Your task to perform on an android device: toggle notification dots Image 0: 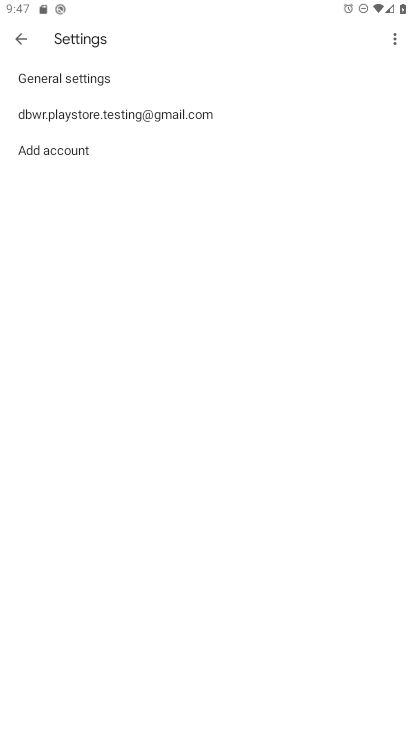
Step 0: press home button
Your task to perform on an android device: toggle notification dots Image 1: 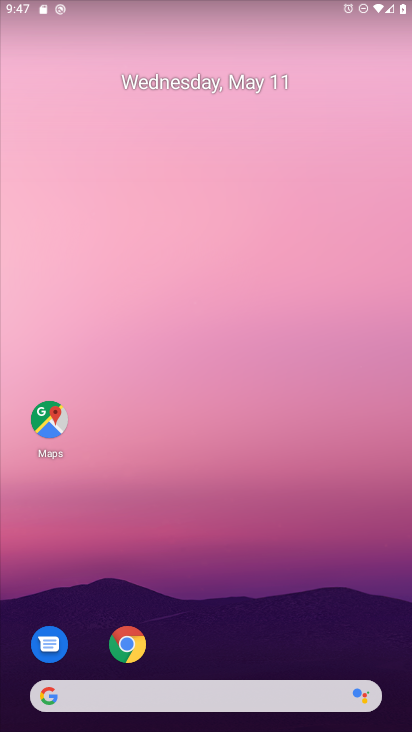
Step 1: drag from (223, 560) to (139, 78)
Your task to perform on an android device: toggle notification dots Image 2: 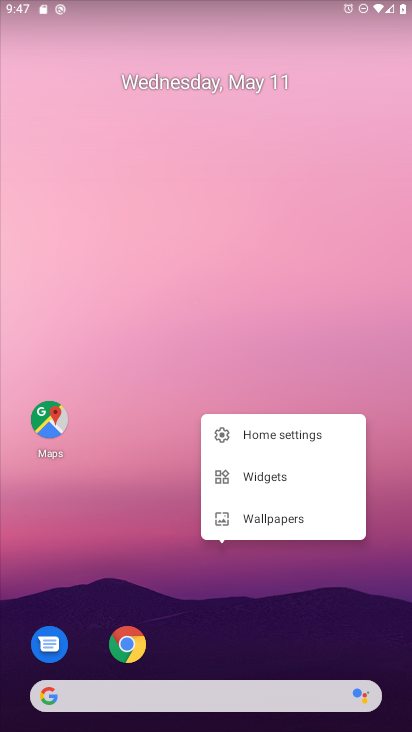
Step 2: click (151, 528)
Your task to perform on an android device: toggle notification dots Image 3: 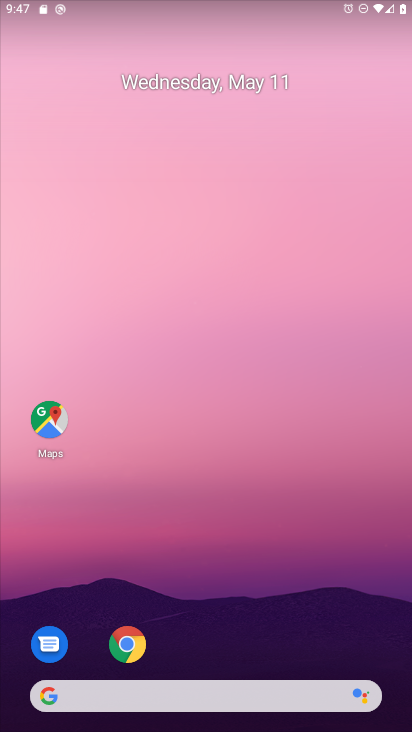
Step 3: drag from (289, 564) to (235, 139)
Your task to perform on an android device: toggle notification dots Image 4: 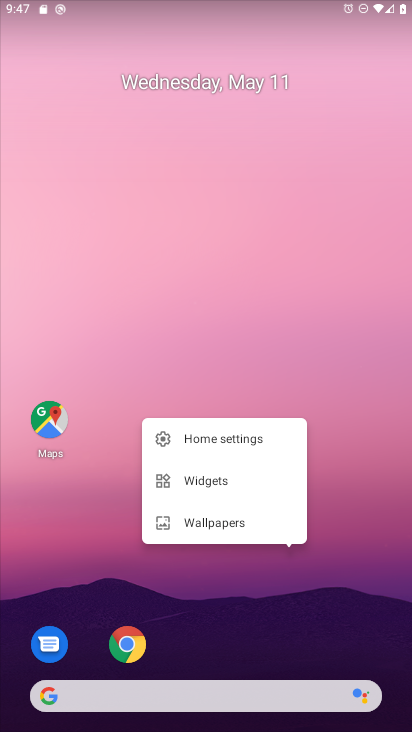
Step 4: click (253, 348)
Your task to perform on an android device: toggle notification dots Image 5: 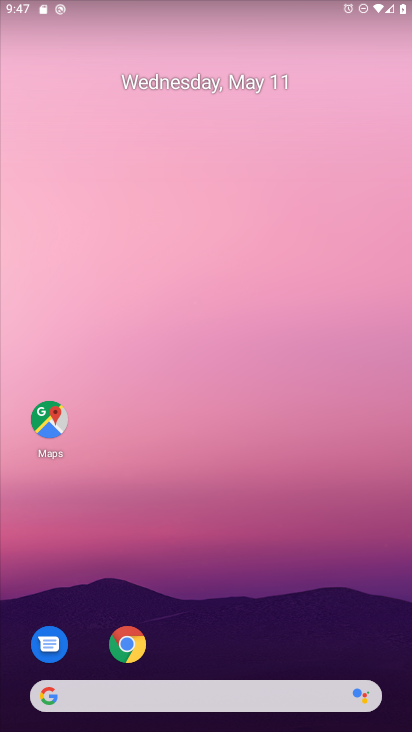
Step 5: drag from (237, 649) to (182, 126)
Your task to perform on an android device: toggle notification dots Image 6: 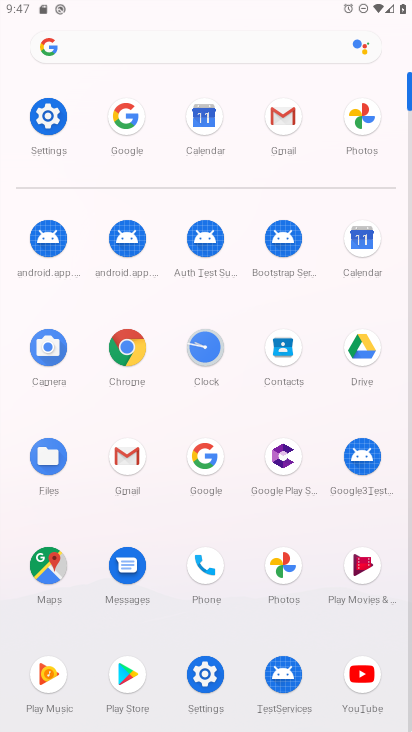
Step 6: click (44, 118)
Your task to perform on an android device: toggle notification dots Image 7: 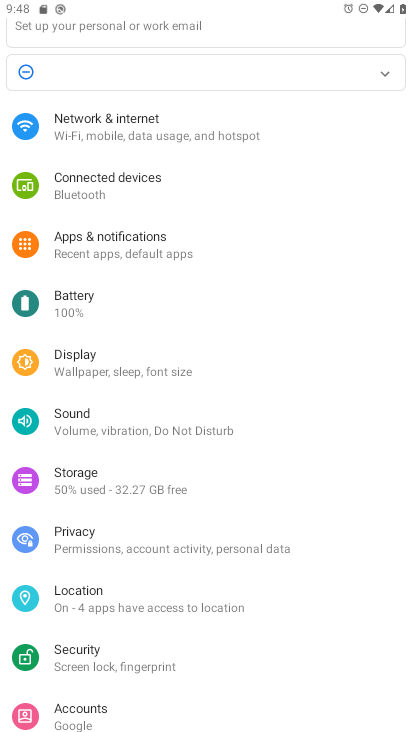
Step 7: click (95, 236)
Your task to perform on an android device: toggle notification dots Image 8: 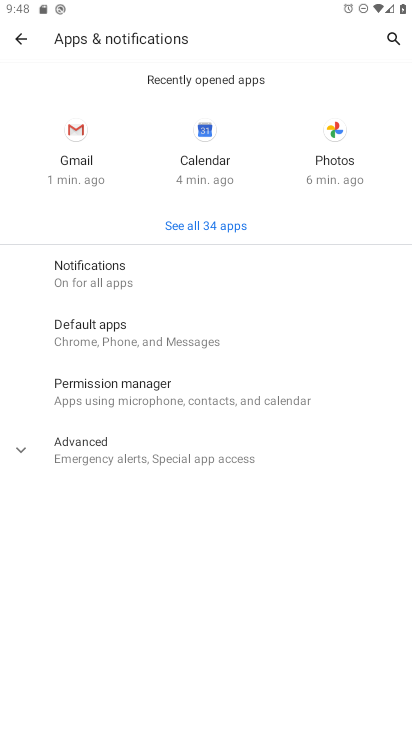
Step 8: click (86, 265)
Your task to perform on an android device: toggle notification dots Image 9: 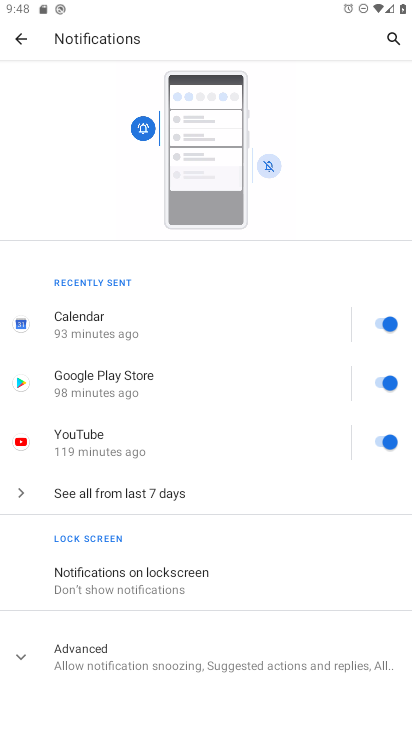
Step 9: click (62, 650)
Your task to perform on an android device: toggle notification dots Image 10: 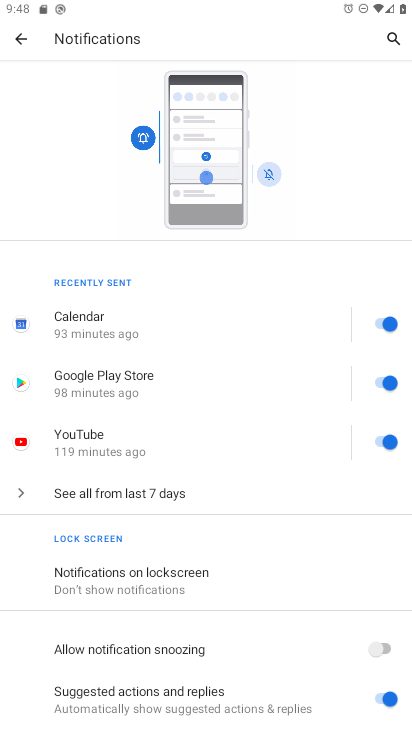
Step 10: drag from (250, 594) to (217, 306)
Your task to perform on an android device: toggle notification dots Image 11: 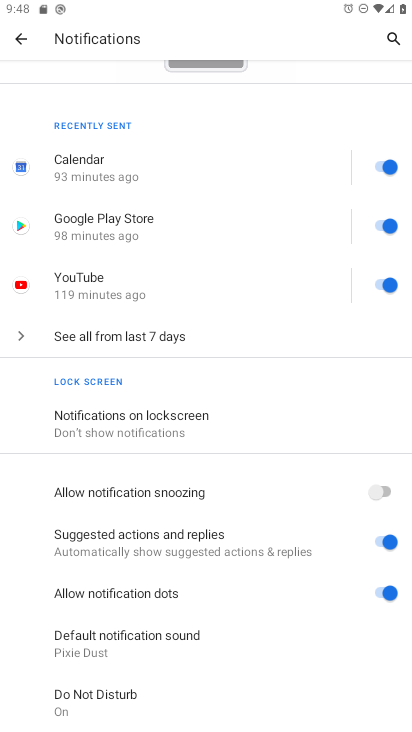
Step 11: click (381, 591)
Your task to perform on an android device: toggle notification dots Image 12: 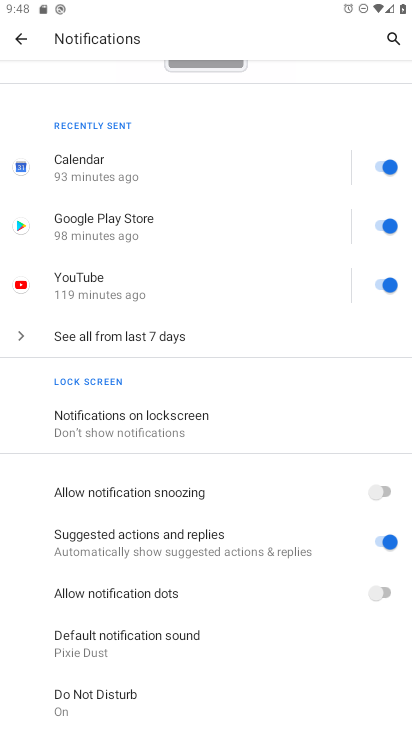
Step 12: task complete